Your task to perform on an android device: Open maps Image 0: 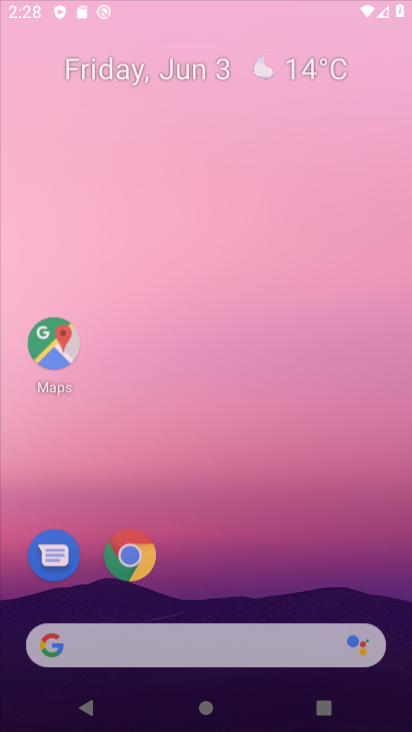
Step 0: press home button
Your task to perform on an android device: Open maps Image 1: 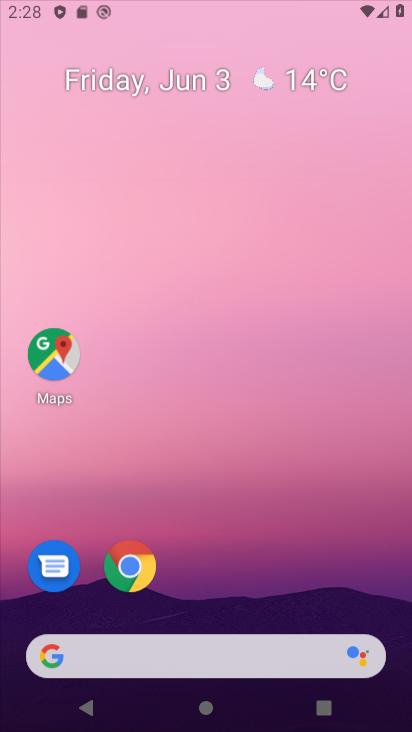
Step 1: drag from (284, 643) to (278, 110)
Your task to perform on an android device: Open maps Image 2: 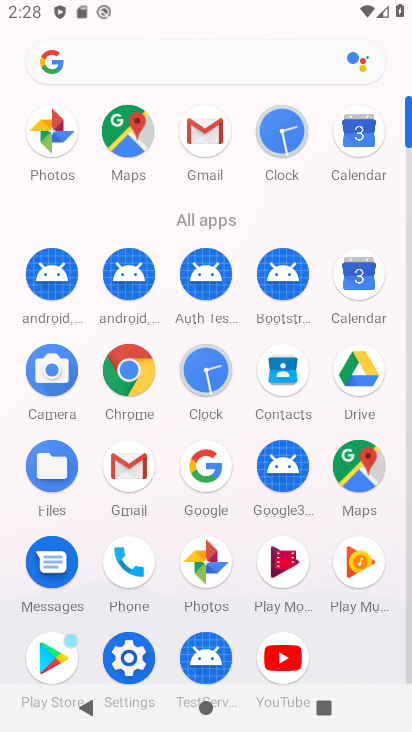
Step 2: click (141, 465)
Your task to perform on an android device: Open maps Image 3: 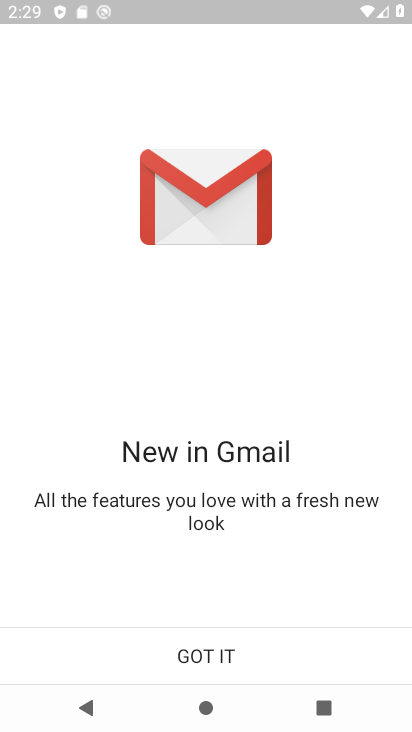
Step 3: click (216, 651)
Your task to perform on an android device: Open maps Image 4: 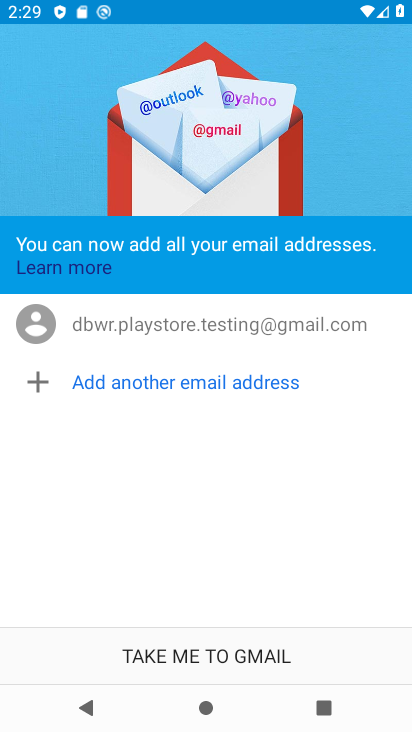
Step 4: click (216, 643)
Your task to perform on an android device: Open maps Image 5: 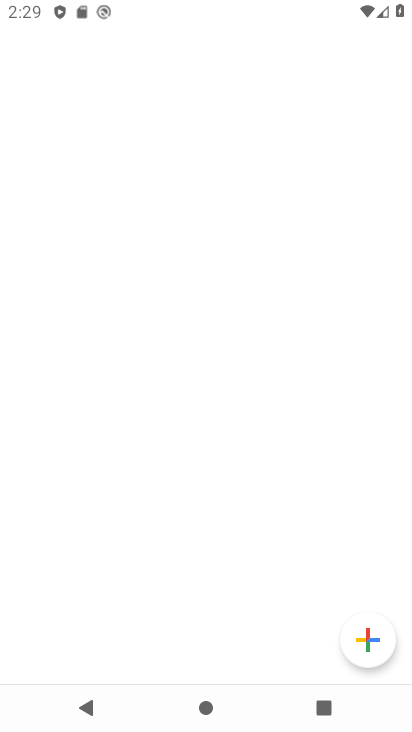
Step 5: click (186, 660)
Your task to perform on an android device: Open maps Image 6: 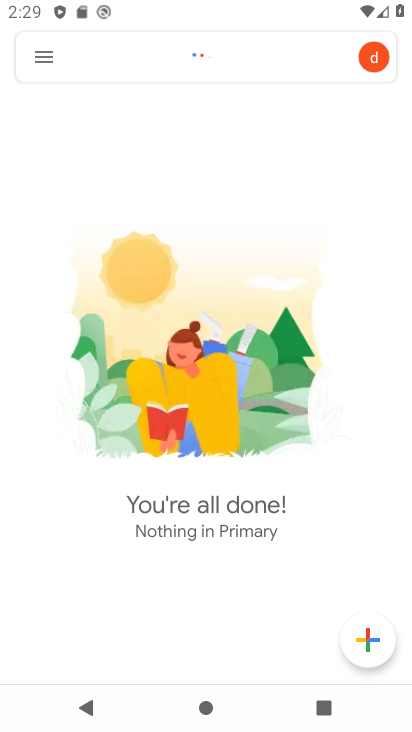
Step 6: click (44, 43)
Your task to perform on an android device: Open maps Image 7: 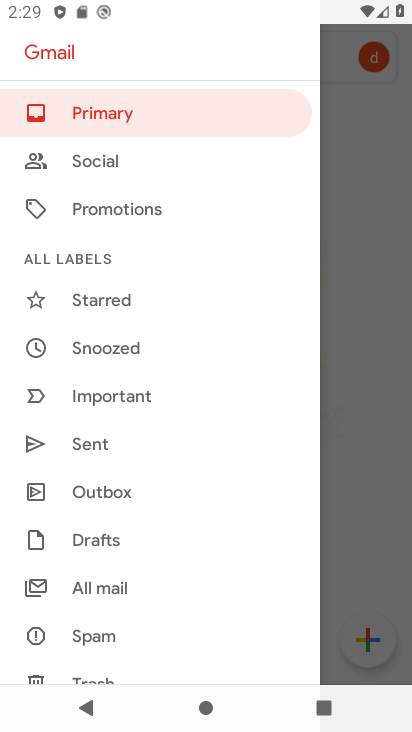
Step 7: drag from (140, 544) to (159, 450)
Your task to perform on an android device: Open maps Image 8: 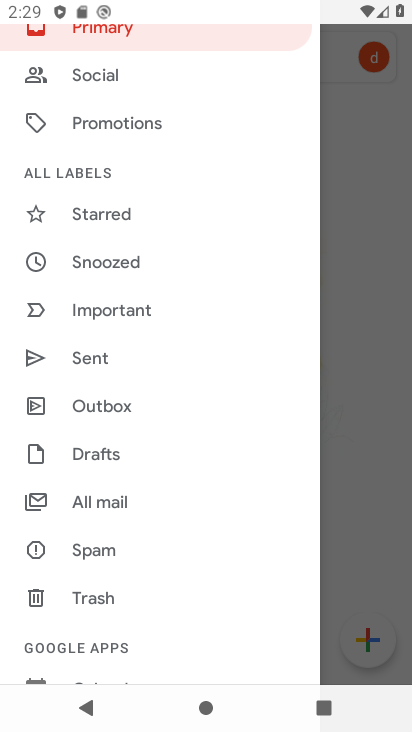
Step 8: press home button
Your task to perform on an android device: Open maps Image 9: 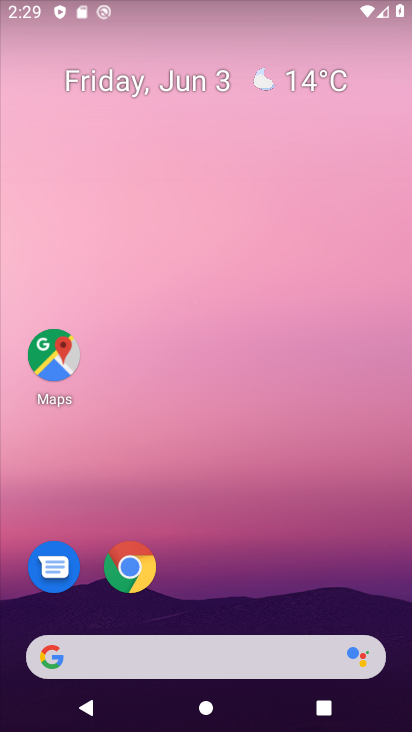
Step 9: drag from (262, 647) to (222, 134)
Your task to perform on an android device: Open maps Image 10: 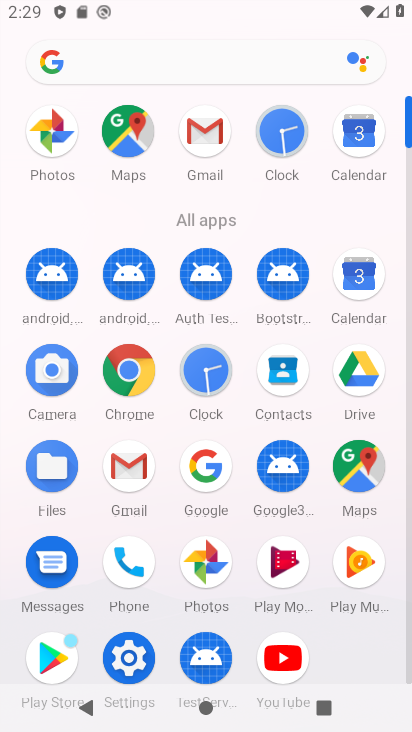
Step 10: click (122, 110)
Your task to perform on an android device: Open maps Image 11: 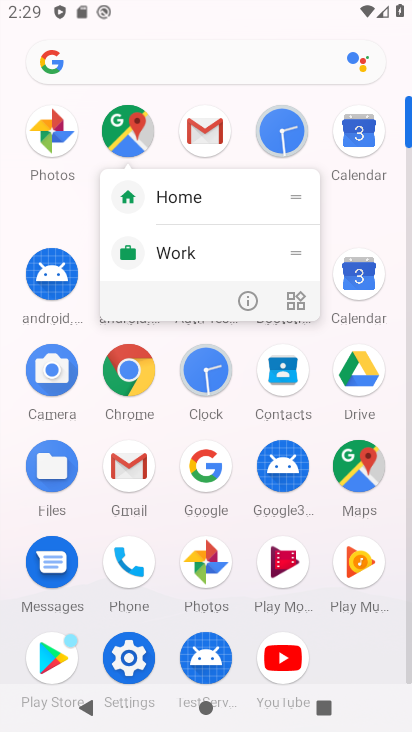
Step 11: click (103, 118)
Your task to perform on an android device: Open maps Image 12: 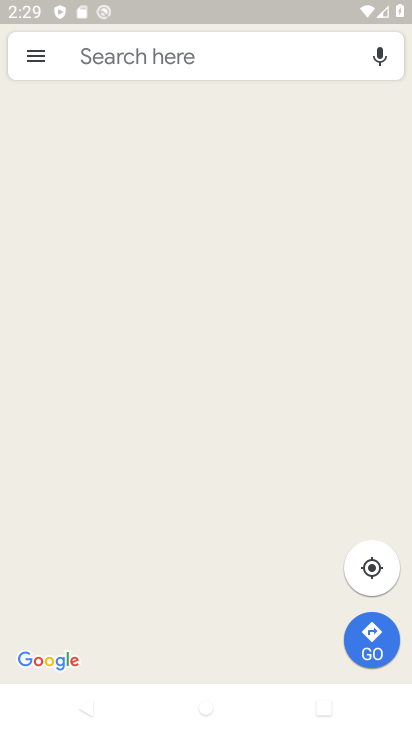
Step 12: click (26, 59)
Your task to perform on an android device: Open maps Image 13: 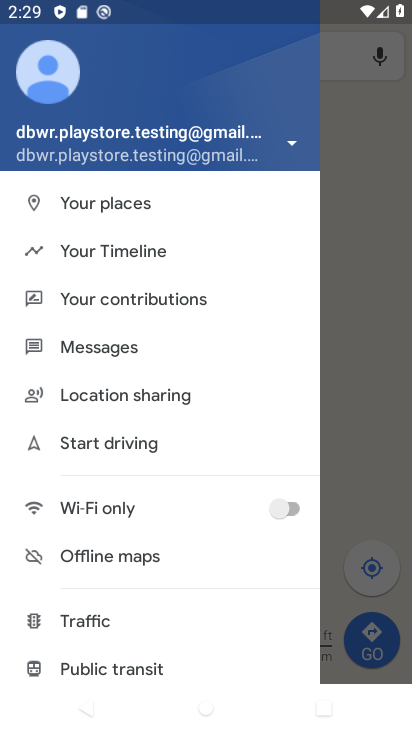
Step 13: click (348, 405)
Your task to perform on an android device: Open maps Image 14: 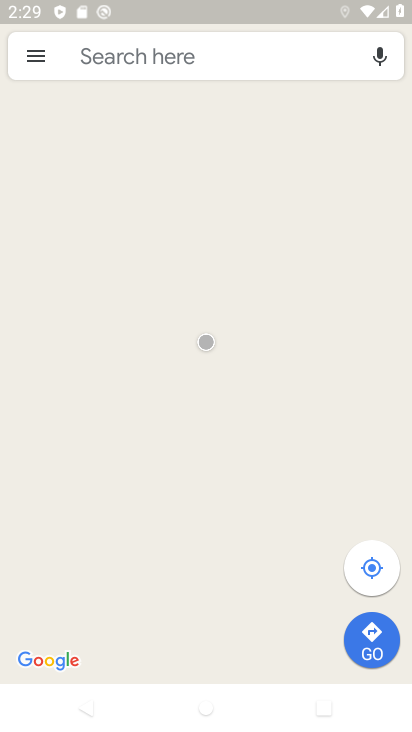
Step 14: task complete